Your task to perform on an android device: open sync settings in chrome Image 0: 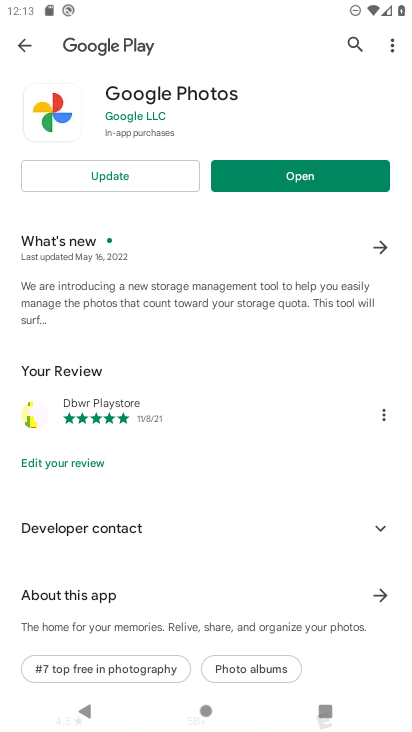
Step 0: press home button
Your task to perform on an android device: open sync settings in chrome Image 1: 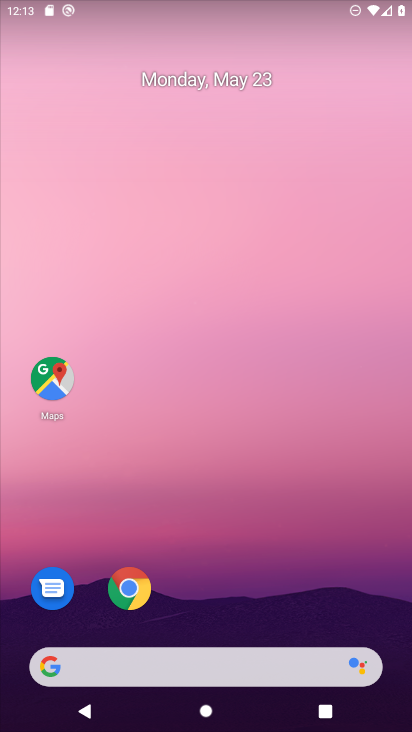
Step 1: drag from (258, 697) to (240, 138)
Your task to perform on an android device: open sync settings in chrome Image 2: 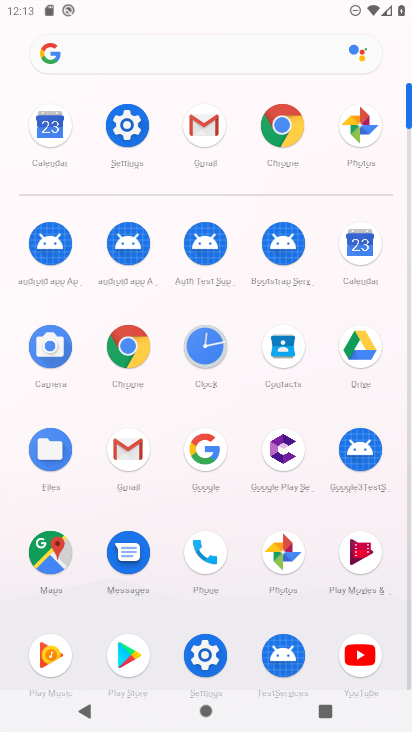
Step 2: click (293, 131)
Your task to perform on an android device: open sync settings in chrome Image 3: 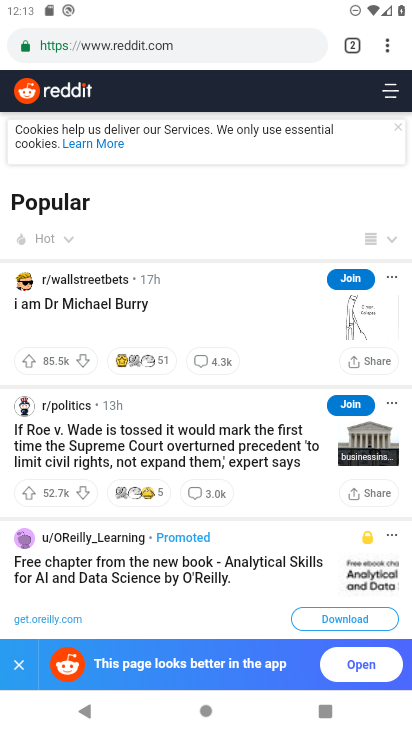
Step 3: click (381, 48)
Your task to perform on an android device: open sync settings in chrome Image 4: 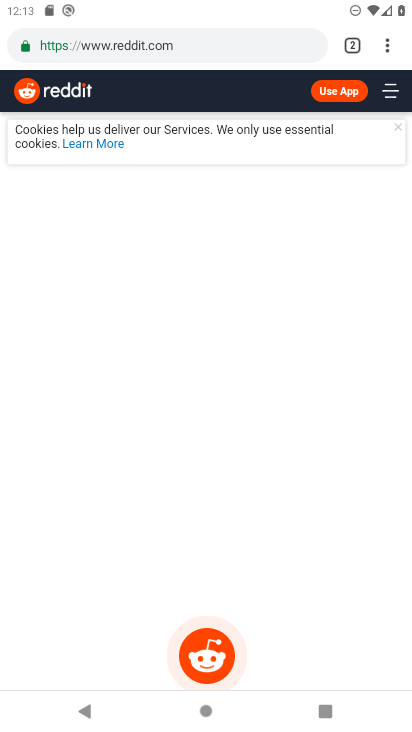
Step 4: click (385, 48)
Your task to perform on an android device: open sync settings in chrome Image 5: 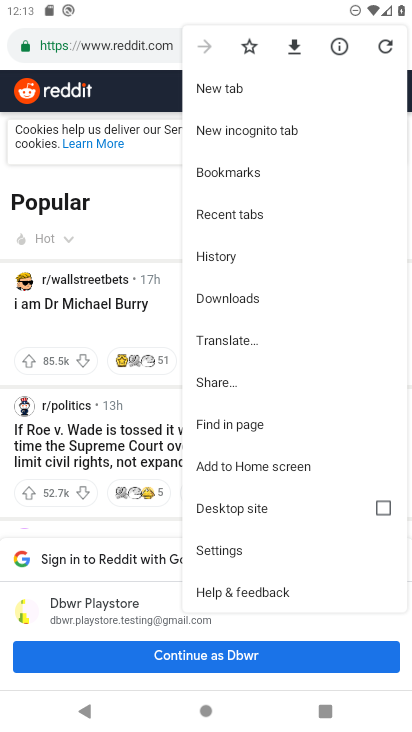
Step 5: click (225, 546)
Your task to perform on an android device: open sync settings in chrome Image 6: 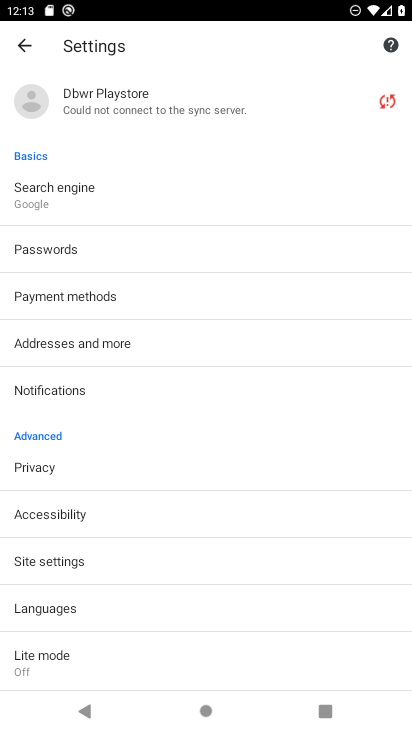
Step 6: click (88, 556)
Your task to perform on an android device: open sync settings in chrome Image 7: 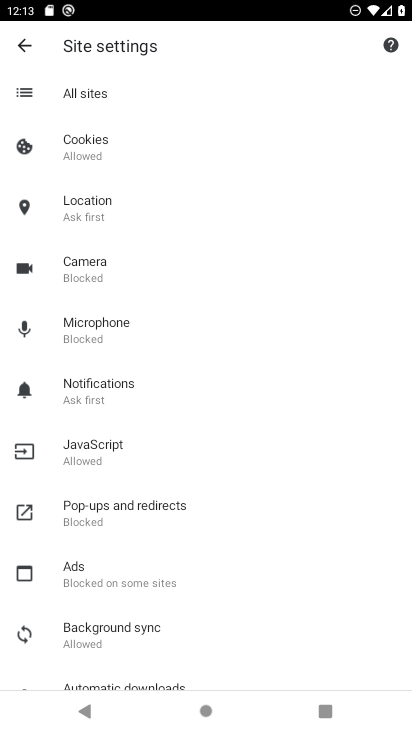
Step 7: drag from (180, 632) to (201, 412)
Your task to perform on an android device: open sync settings in chrome Image 8: 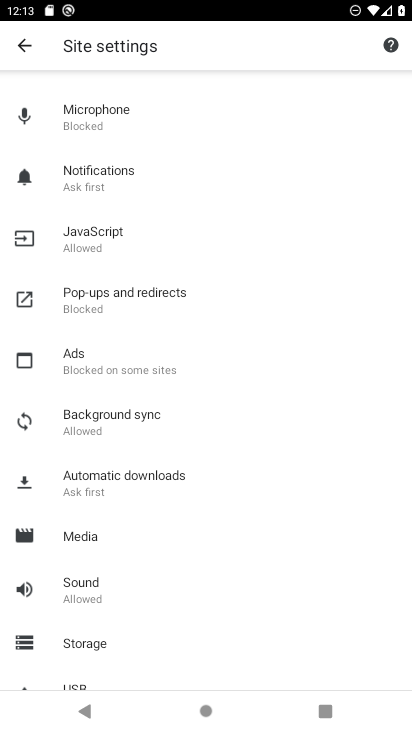
Step 8: click (99, 425)
Your task to perform on an android device: open sync settings in chrome Image 9: 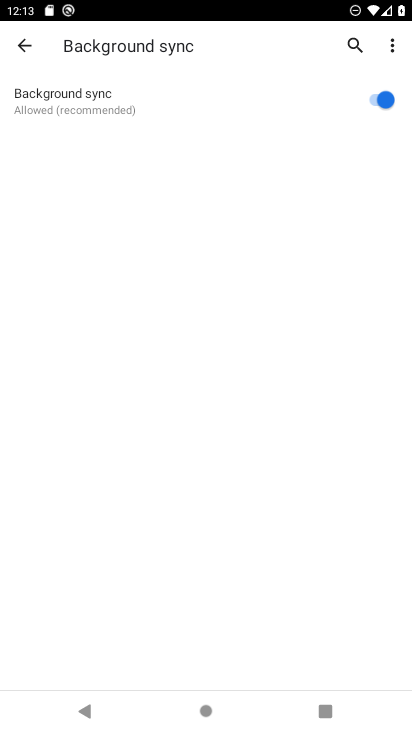
Step 9: task complete